Your task to perform on an android device: open app "The Home Depot" (install if not already installed) Image 0: 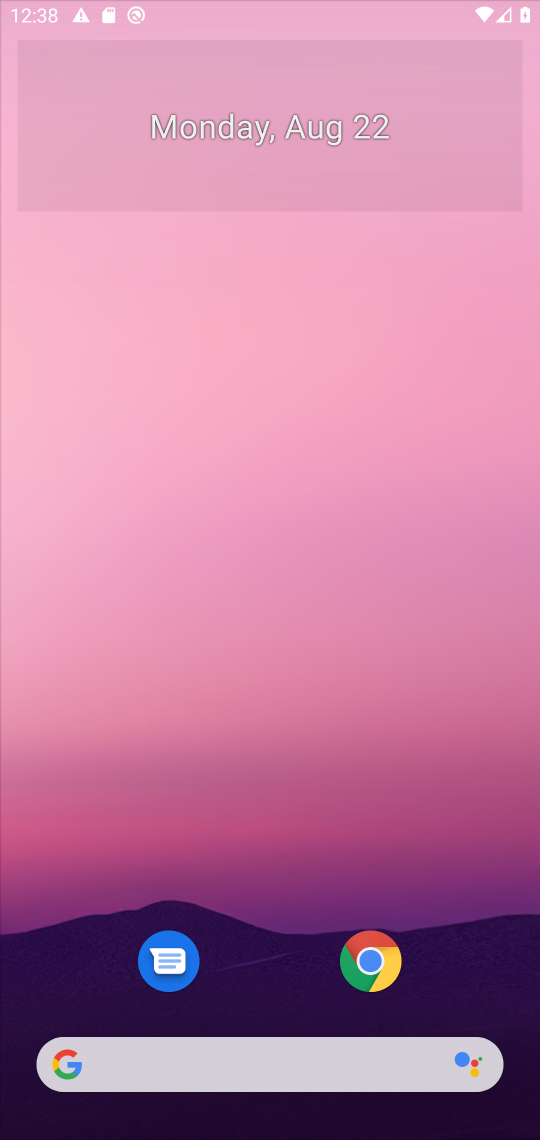
Step 0: press home button
Your task to perform on an android device: open app "The Home Depot" (install if not already installed) Image 1: 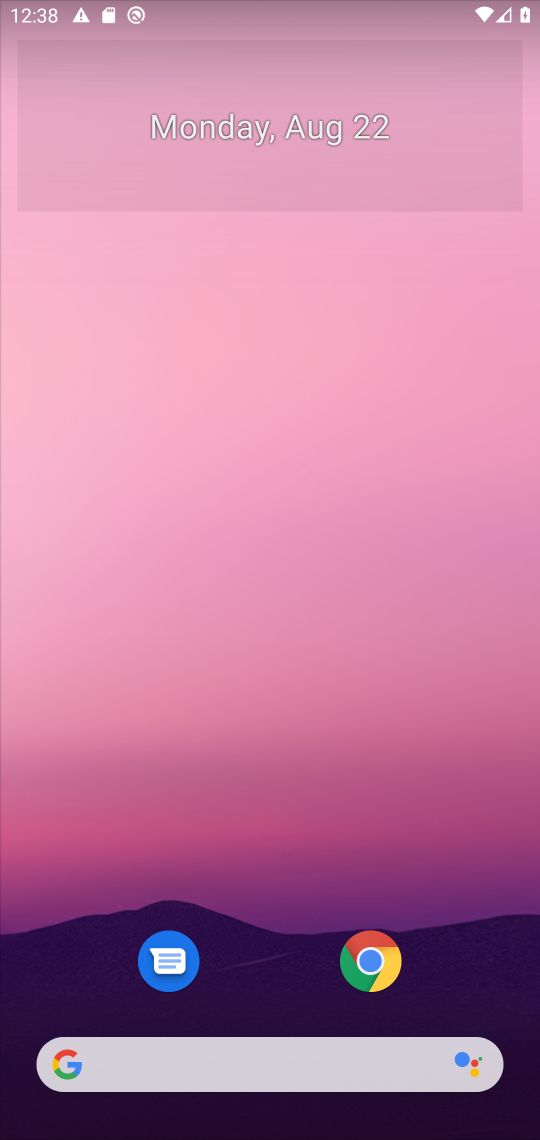
Step 1: drag from (450, 926) to (425, 68)
Your task to perform on an android device: open app "The Home Depot" (install if not already installed) Image 2: 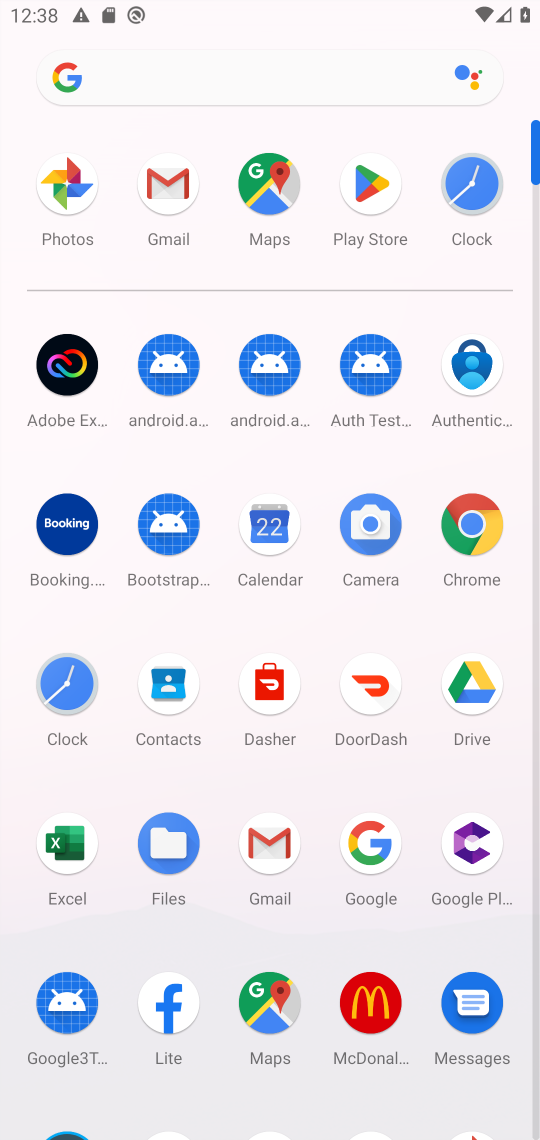
Step 2: click (379, 175)
Your task to perform on an android device: open app "The Home Depot" (install if not already installed) Image 3: 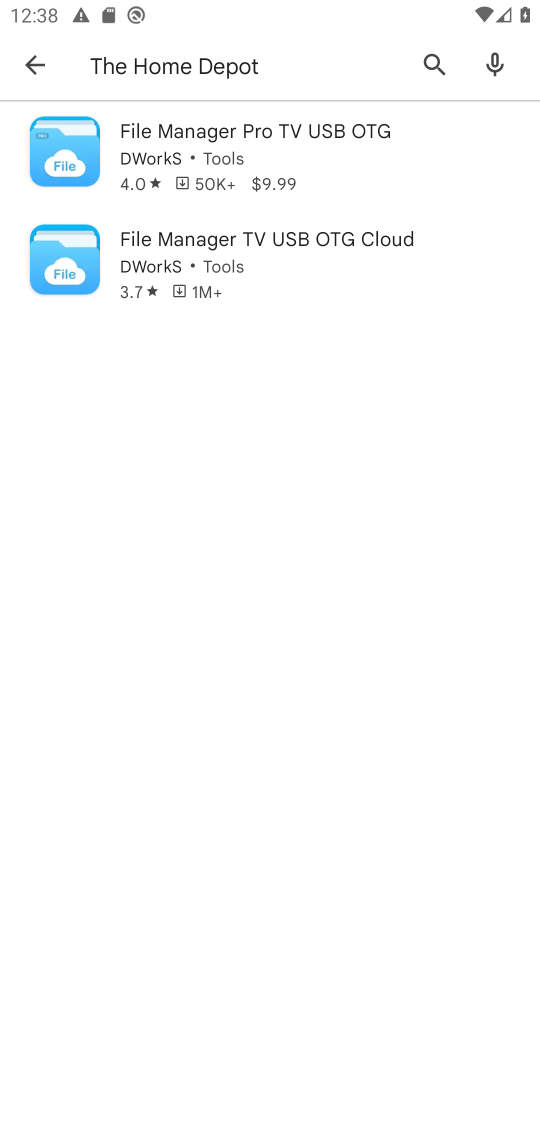
Step 3: press back button
Your task to perform on an android device: open app "The Home Depot" (install if not already installed) Image 4: 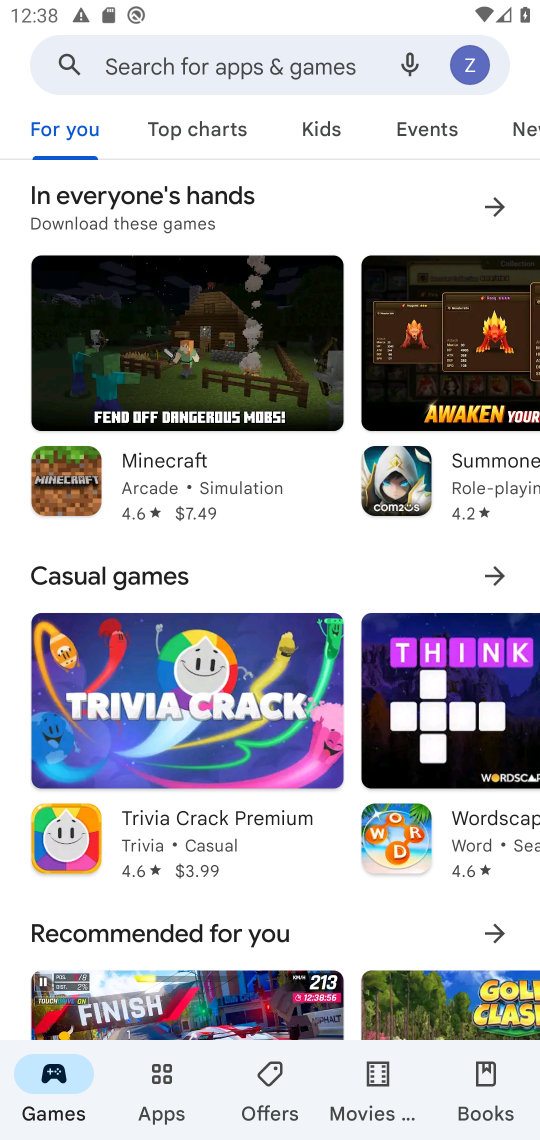
Step 4: click (319, 69)
Your task to perform on an android device: open app "The Home Depot" (install if not already installed) Image 5: 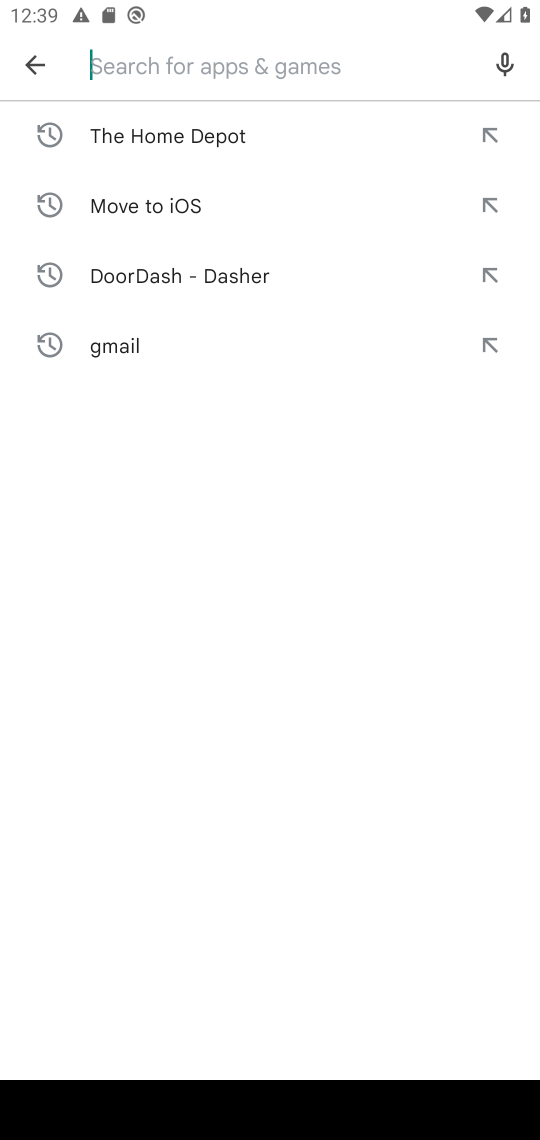
Step 5: press enter
Your task to perform on an android device: open app "The Home Depot" (install if not already installed) Image 6: 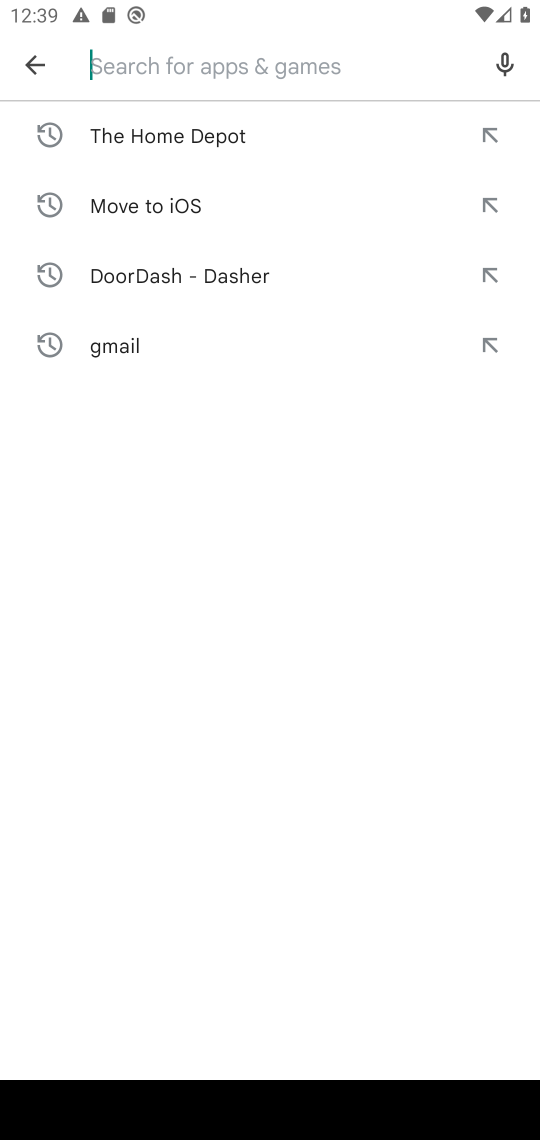
Step 6: type "The Home Depot"
Your task to perform on an android device: open app "The Home Depot" (install if not already installed) Image 7: 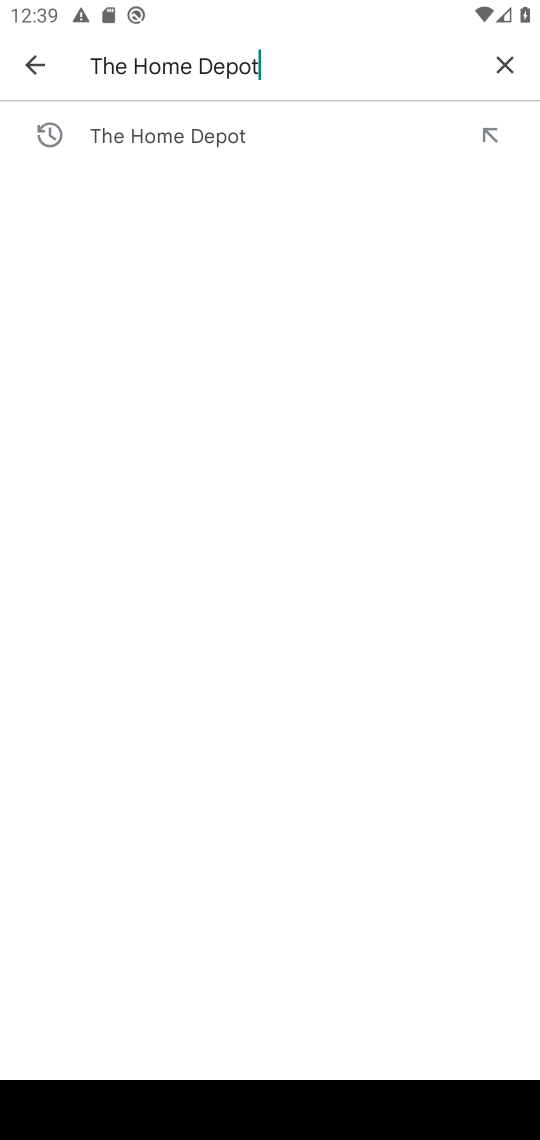
Step 7: click (207, 139)
Your task to perform on an android device: open app "The Home Depot" (install if not already installed) Image 8: 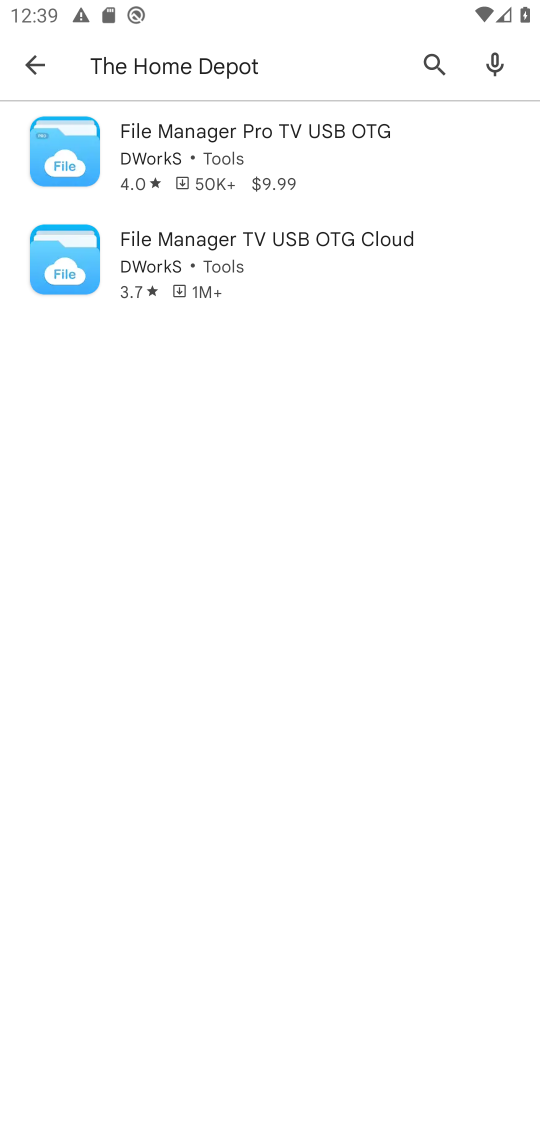
Step 8: task complete